Your task to perform on an android device: turn on priority inbox in the gmail app Image 0: 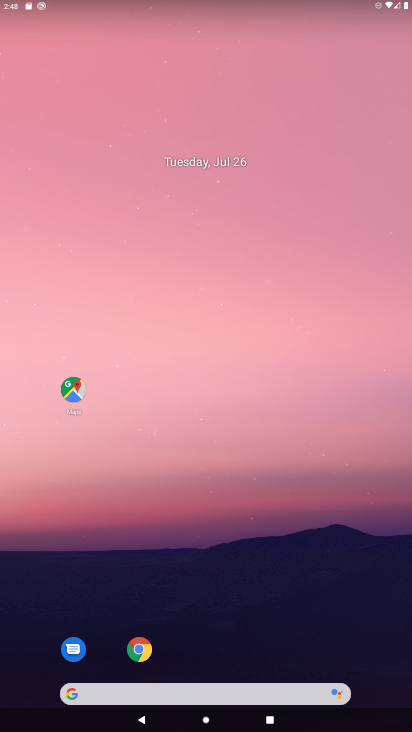
Step 0: drag from (192, 691) to (202, 21)
Your task to perform on an android device: turn on priority inbox in the gmail app Image 1: 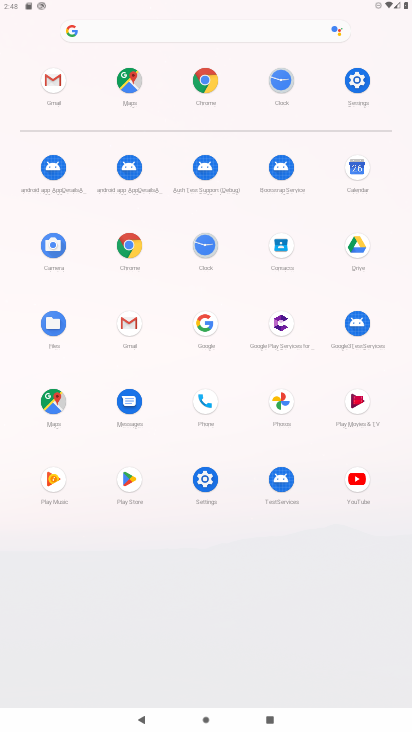
Step 1: click (136, 318)
Your task to perform on an android device: turn on priority inbox in the gmail app Image 2: 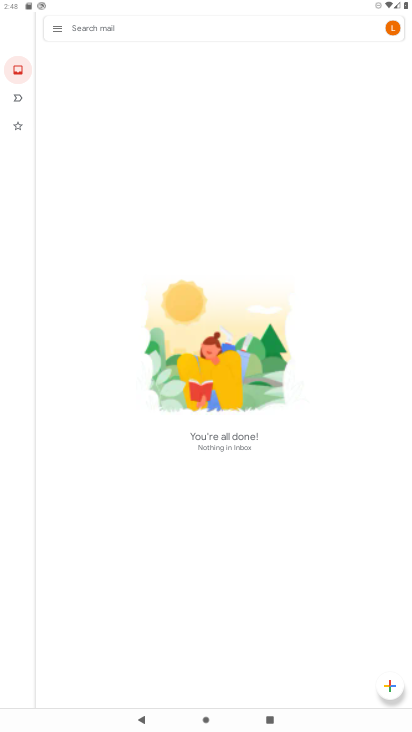
Step 2: click (55, 34)
Your task to perform on an android device: turn on priority inbox in the gmail app Image 3: 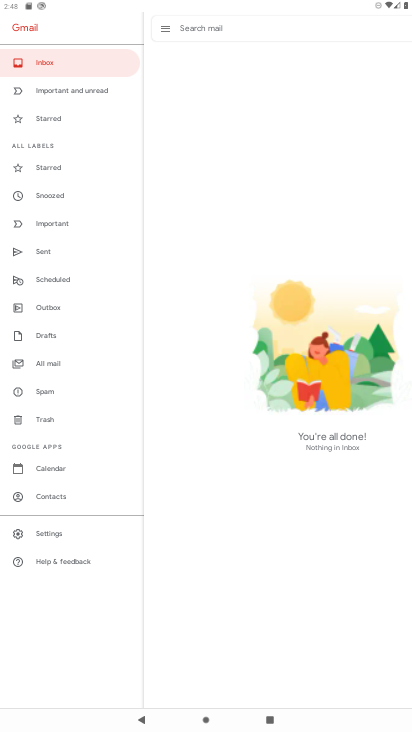
Step 3: click (59, 537)
Your task to perform on an android device: turn on priority inbox in the gmail app Image 4: 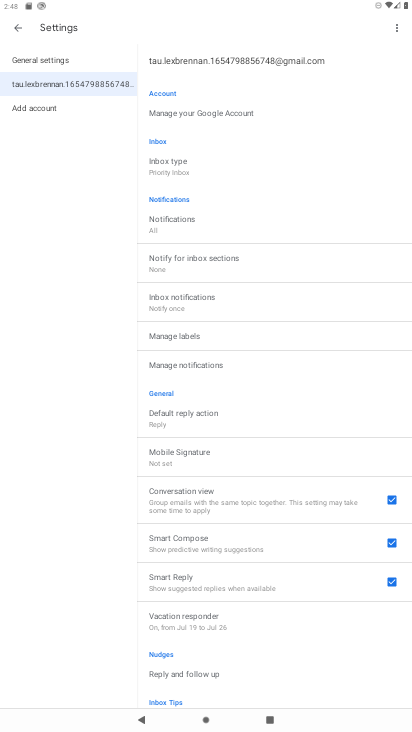
Step 4: click (204, 152)
Your task to perform on an android device: turn on priority inbox in the gmail app Image 5: 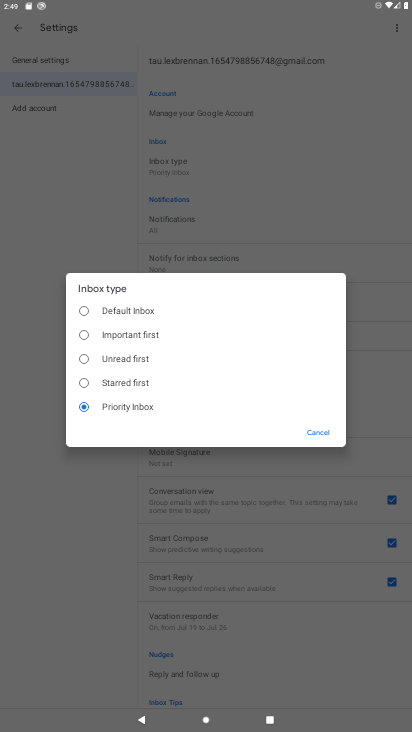
Step 5: click (129, 410)
Your task to perform on an android device: turn on priority inbox in the gmail app Image 6: 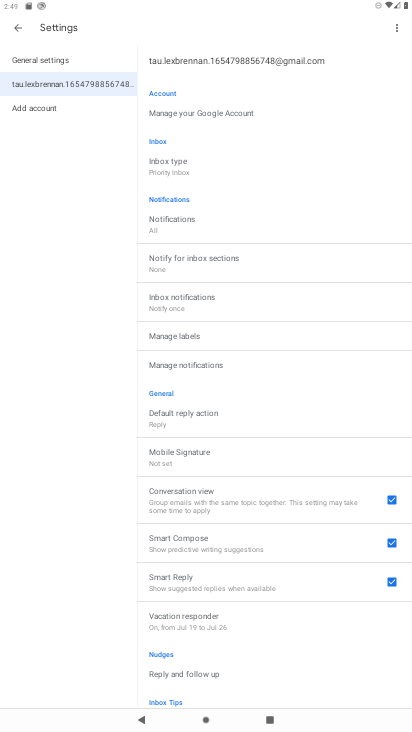
Step 6: task complete